Your task to perform on an android device: open a bookmark in the chrome app Image 0: 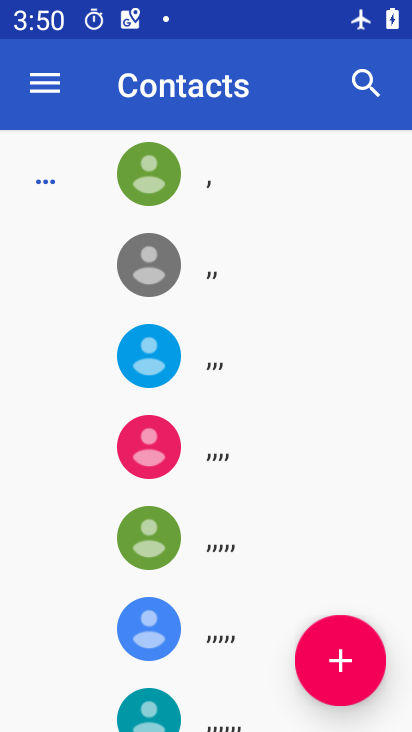
Step 0: press home button
Your task to perform on an android device: open a bookmark in the chrome app Image 1: 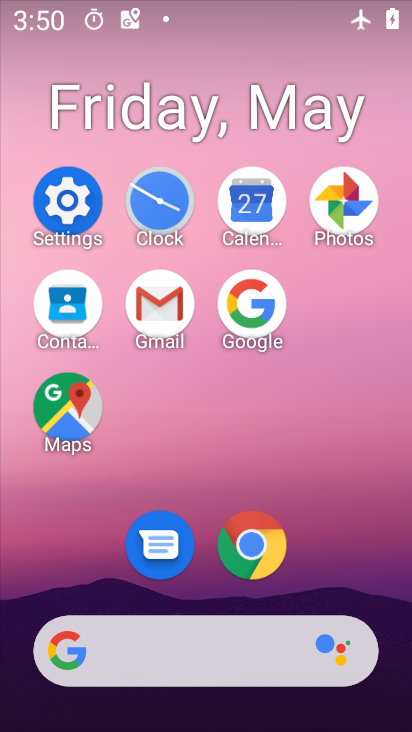
Step 1: click (267, 547)
Your task to perform on an android device: open a bookmark in the chrome app Image 2: 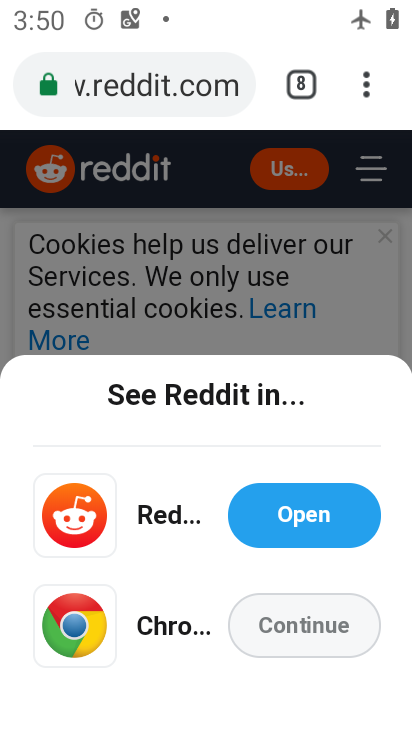
Step 2: click (363, 68)
Your task to perform on an android device: open a bookmark in the chrome app Image 3: 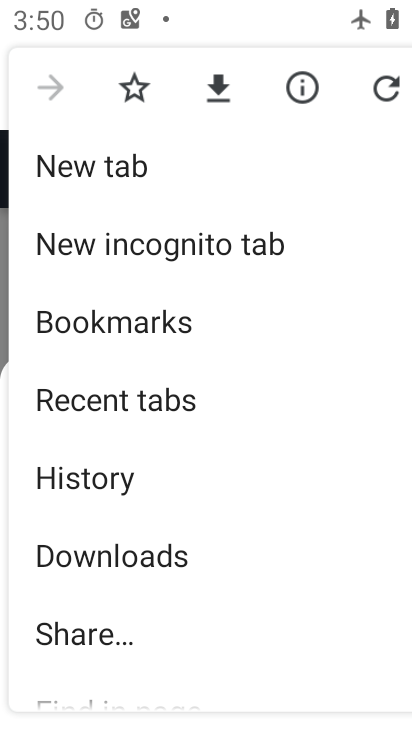
Step 3: click (125, 335)
Your task to perform on an android device: open a bookmark in the chrome app Image 4: 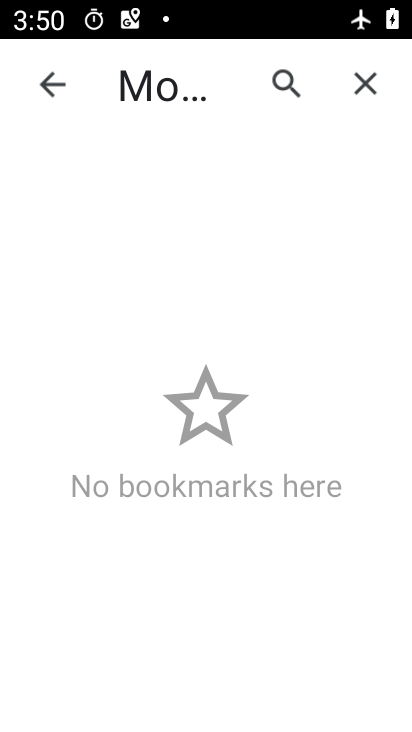
Step 4: task complete